Your task to perform on an android device: Go to location settings Image 0: 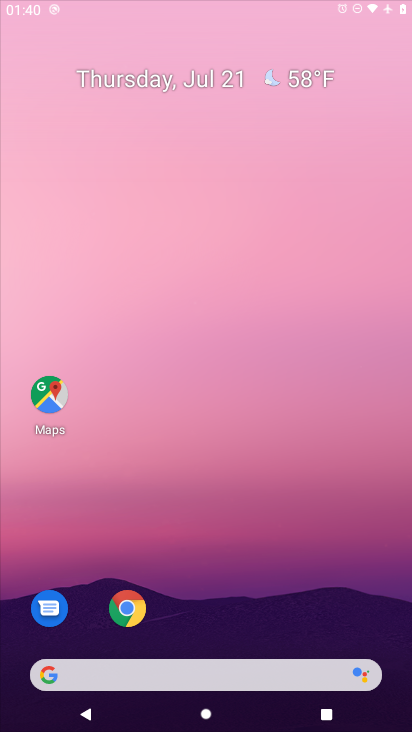
Step 0: press home button
Your task to perform on an android device: Go to location settings Image 1: 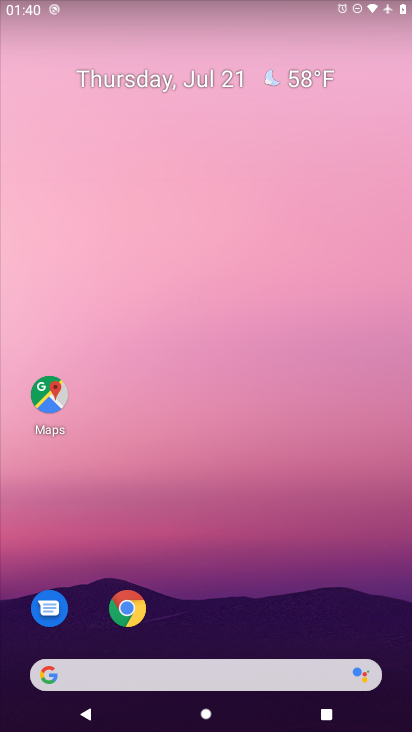
Step 1: drag from (265, 628) to (330, 22)
Your task to perform on an android device: Go to location settings Image 2: 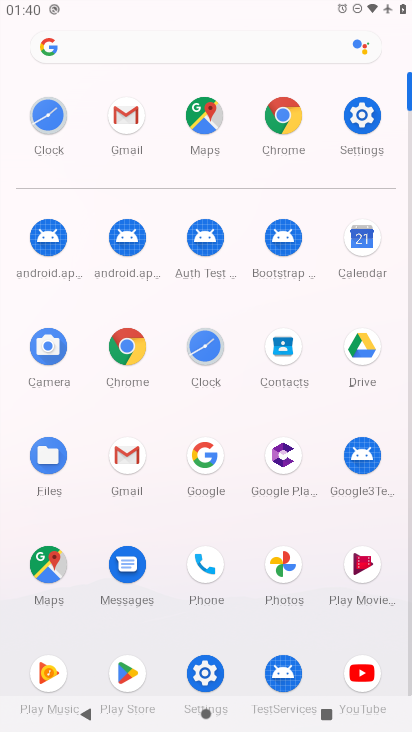
Step 2: click (357, 121)
Your task to perform on an android device: Go to location settings Image 3: 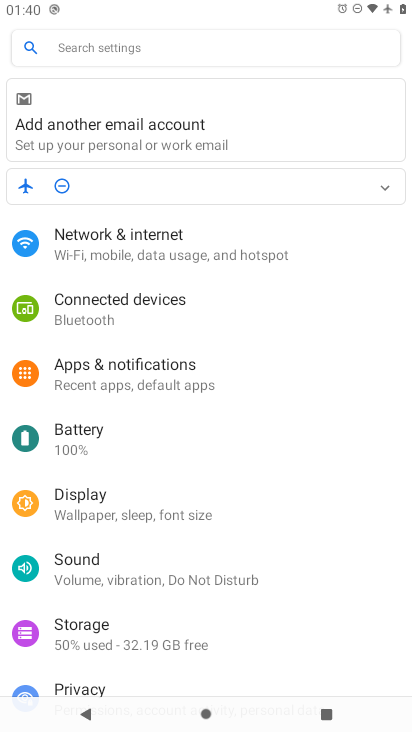
Step 3: drag from (323, 640) to (317, 216)
Your task to perform on an android device: Go to location settings Image 4: 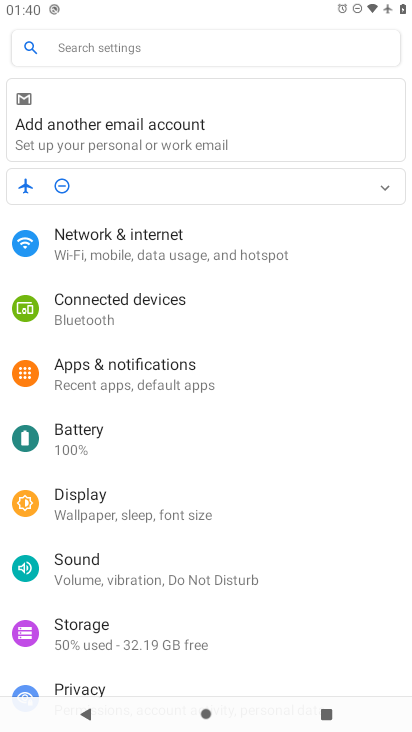
Step 4: drag from (329, 558) to (350, 59)
Your task to perform on an android device: Go to location settings Image 5: 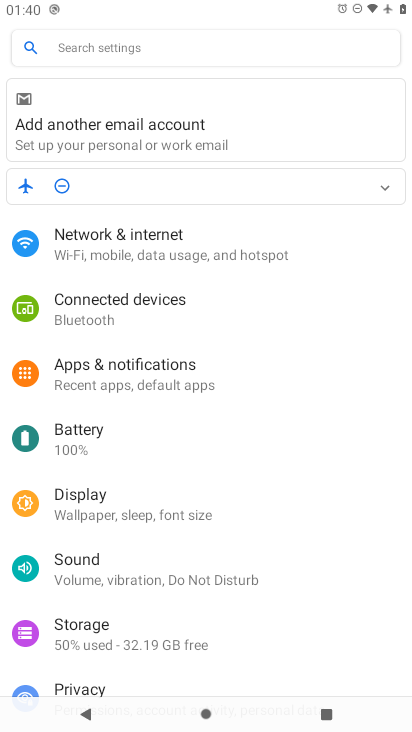
Step 5: drag from (337, 507) to (333, 70)
Your task to perform on an android device: Go to location settings Image 6: 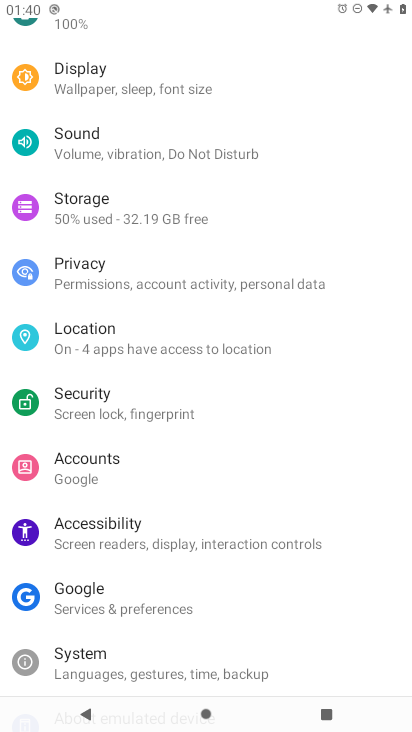
Step 6: click (87, 324)
Your task to perform on an android device: Go to location settings Image 7: 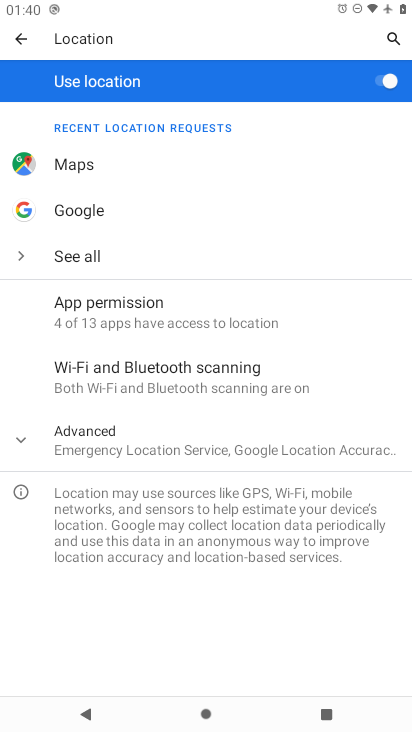
Step 7: task complete